Your task to perform on an android device: open the mobile data screen to see how much data has been used Image 0: 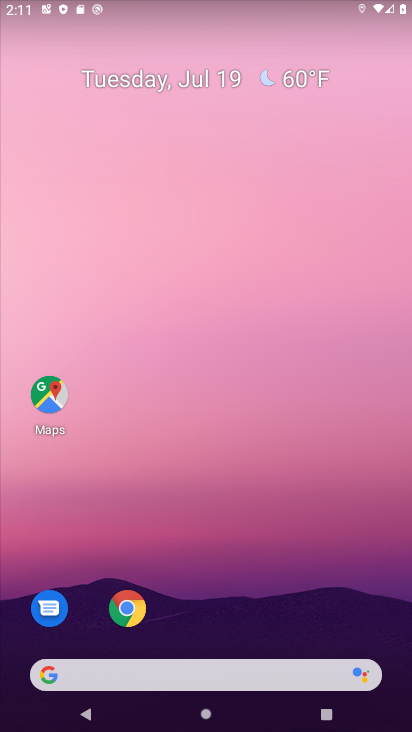
Step 0: drag from (278, 591) to (291, 1)
Your task to perform on an android device: open the mobile data screen to see how much data has been used Image 1: 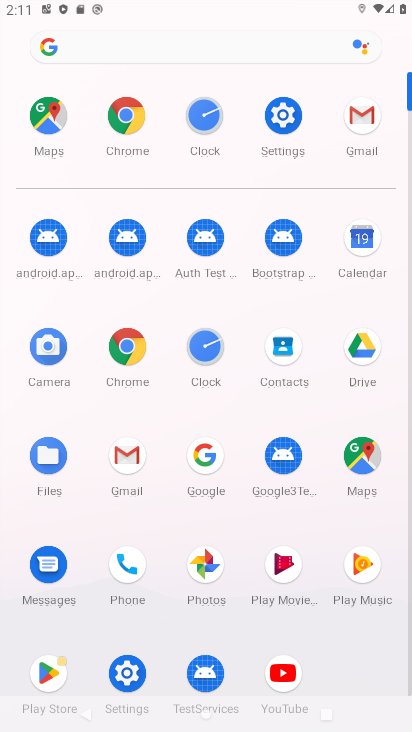
Step 1: click (294, 123)
Your task to perform on an android device: open the mobile data screen to see how much data has been used Image 2: 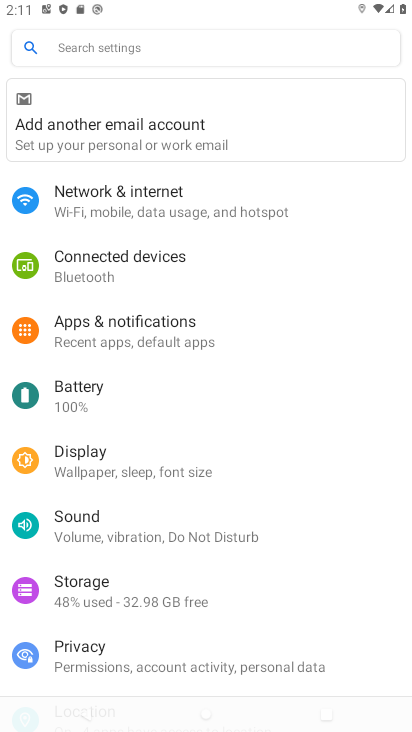
Step 2: click (114, 199)
Your task to perform on an android device: open the mobile data screen to see how much data has been used Image 3: 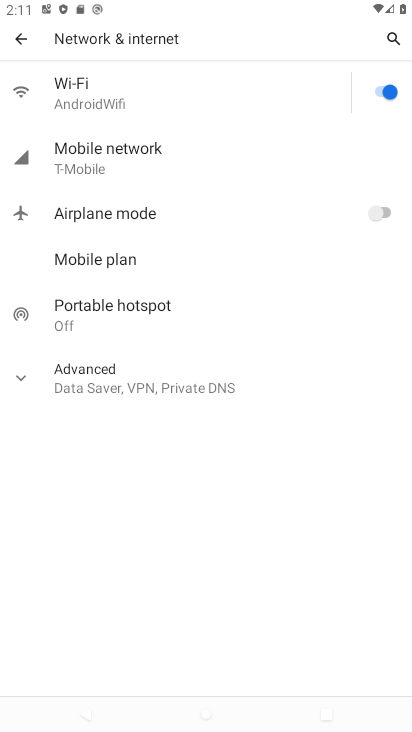
Step 3: click (95, 162)
Your task to perform on an android device: open the mobile data screen to see how much data has been used Image 4: 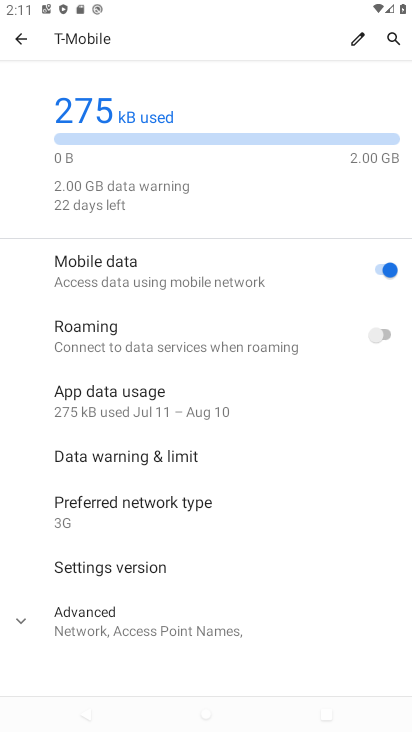
Step 4: task complete